Your task to perform on an android device: toggle data saver in the chrome app Image 0: 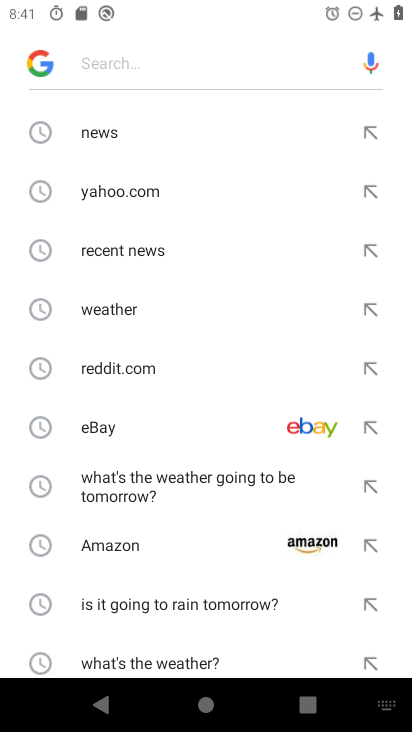
Step 0: press home button
Your task to perform on an android device: toggle data saver in the chrome app Image 1: 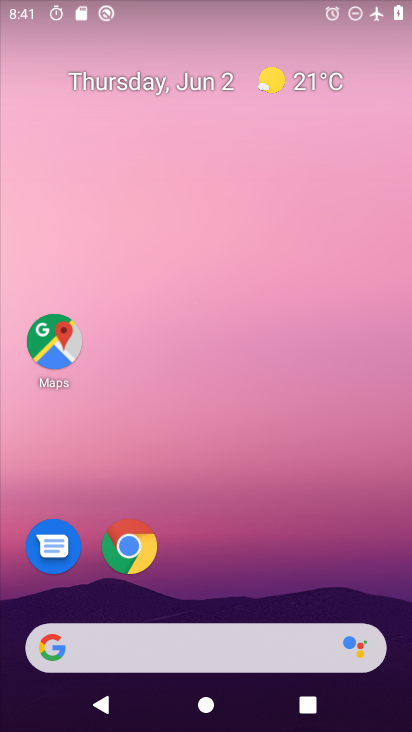
Step 1: drag from (341, 565) to (302, 112)
Your task to perform on an android device: toggle data saver in the chrome app Image 2: 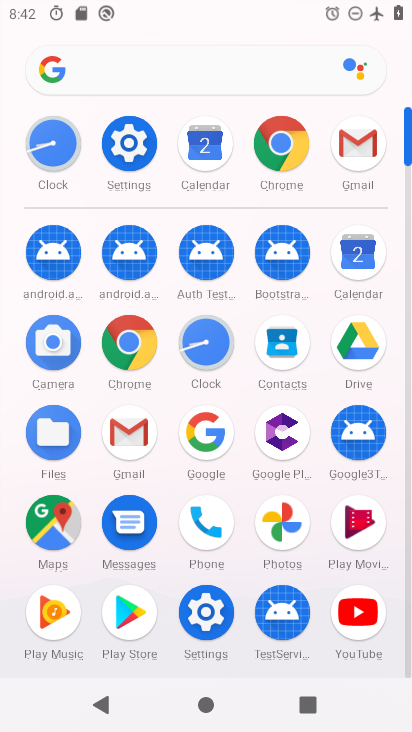
Step 2: click (141, 331)
Your task to perform on an android device: toggle data saver in the chrome app Image 3: 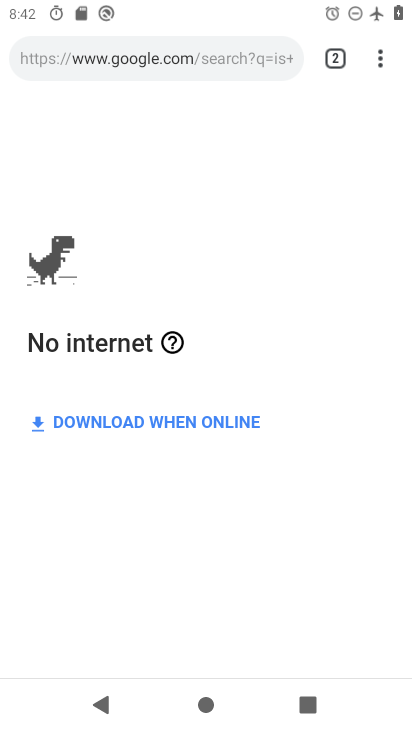
Step 3: click (380, 60)
Your task to perform on an android device: toggle data saver in the chrome app Image 4: 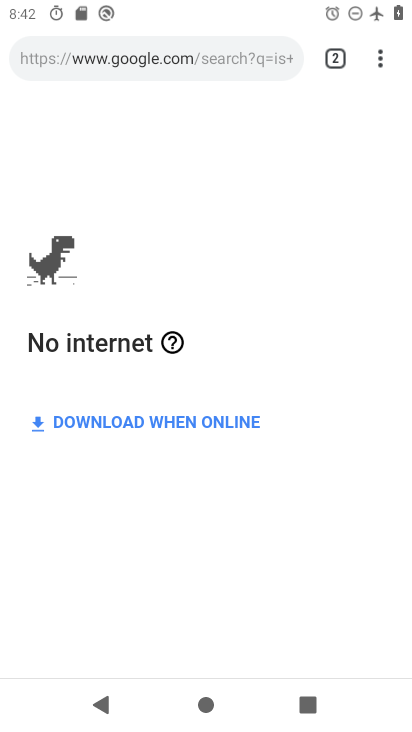
Step 4: drag from (400, 66) to (257, 565)
Your task to perform on an android device: toggle data saver in the chrome app Image 5: 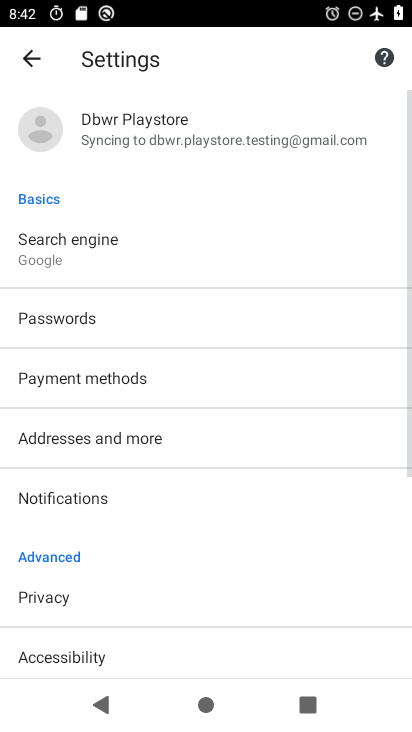
Step 5: drag from (241, 591) to (249, 242)
Your task to perform on an android device: toggle data saver in the chrome app Image 6: 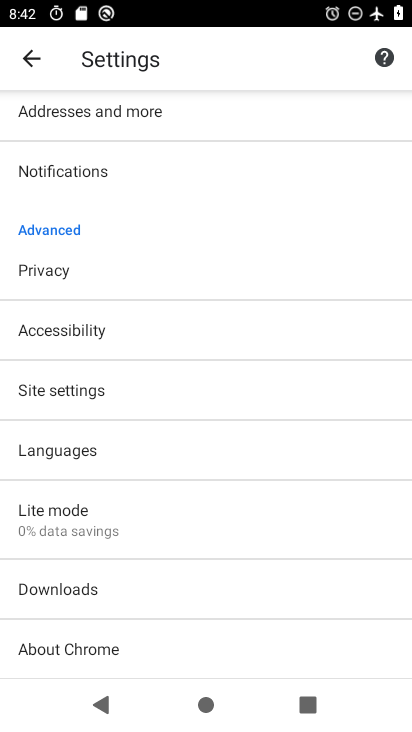
Step 6: drag from (201, 579) to (239, 290)
Your task to perform on an android device: toggle data saver in the chrome app Image 7: 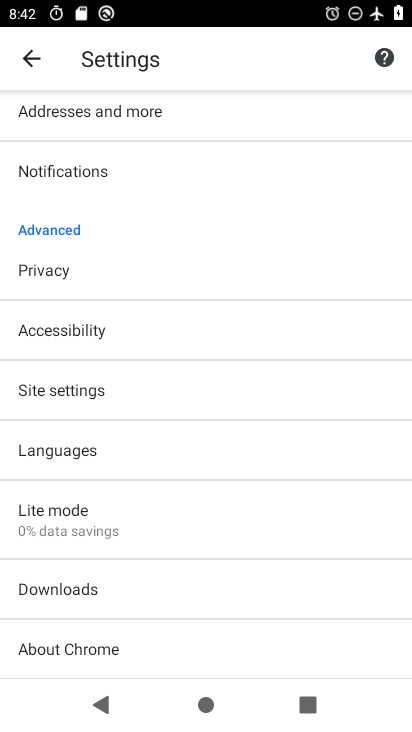
Step 7: click (82, 534)
Your task to perform on an android device: toggle data saver in the chrome app Image 8: 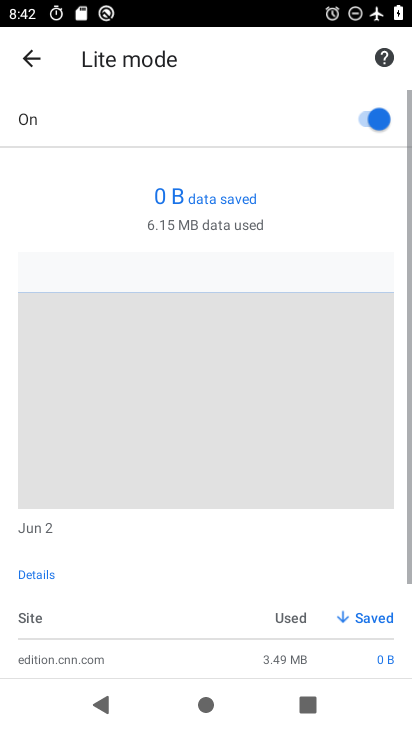
Step 8: task complete